Your task to perform on an android device: Open Google Maps Image 0: 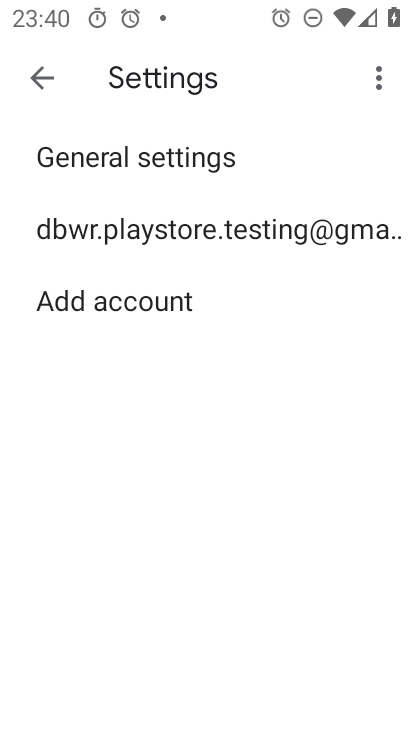
Step 0: press home button
Your task to perform on an android device: Open Google Maps Image 1: 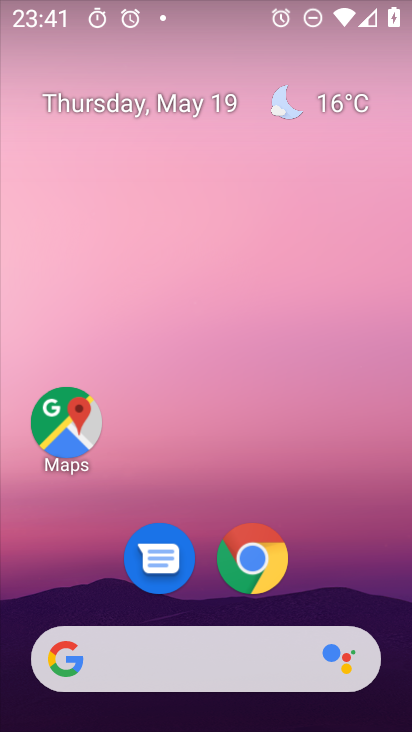
Step 1: drag from (288, 665) to (219, 159)
Your task to perform on an android device: Open Google Maps Image 2: 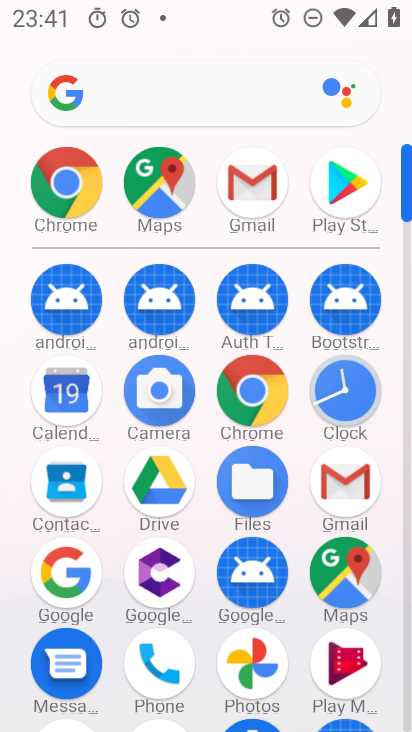
Step 2: click (356, 566)
Your task to perform on an android device: Open Google Maps Image 3: 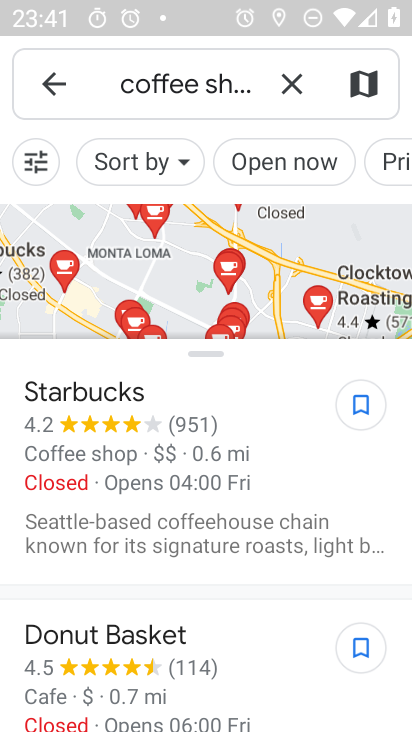
Step 3: task complete